Your task to perform on an android device: open sync settings in chrome Image 0: 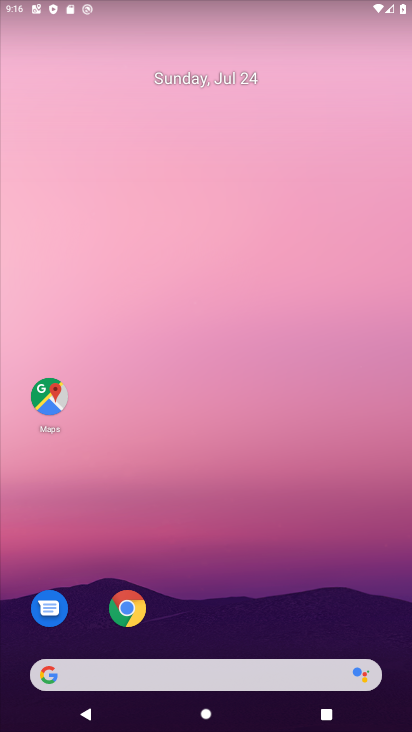
Step 0: click (123, 605)
Your task to perform on an android device: open sync settings in chrome Image 1: 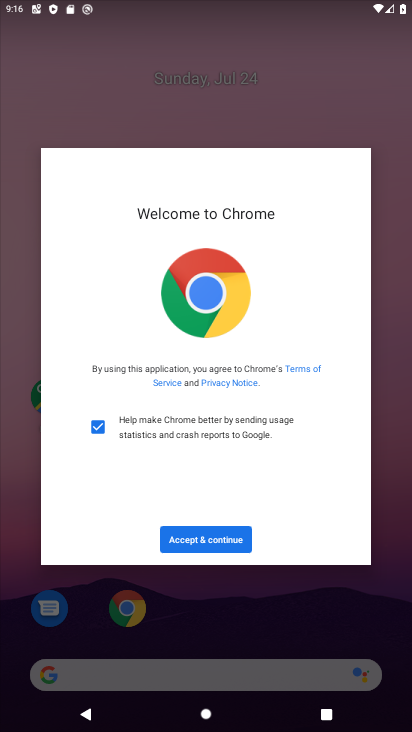
Step 1: click (207, 546)
Your task to perform on an android device: open sync settings in chrome Image 2: 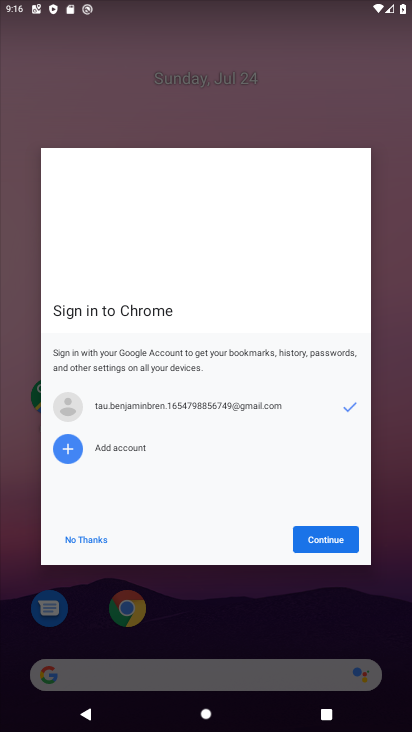
Step 2: click (330, 538)
Your task to perform on an android device: open sync settings in chrome Image 3: 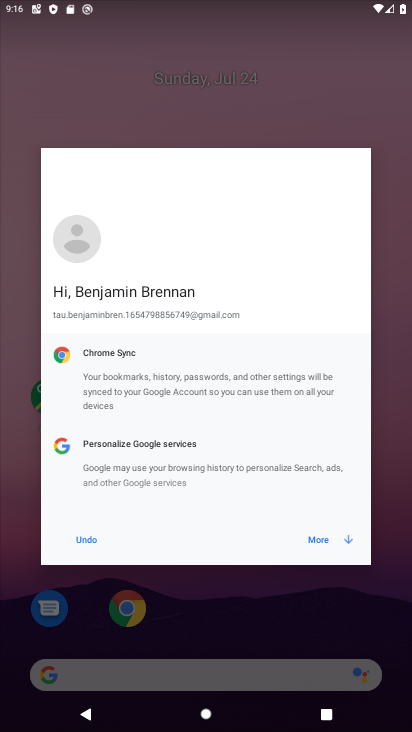
Step 3: click (349, 539)
Your task to perform on an android device: open sync settings in chrome Image 4: 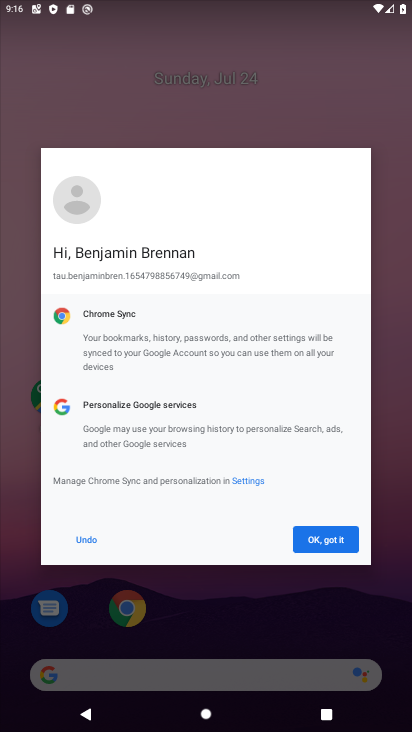
Step 4: click (325, 542)
Your task to perform on an android device: open sync settings in chrome Image 5: 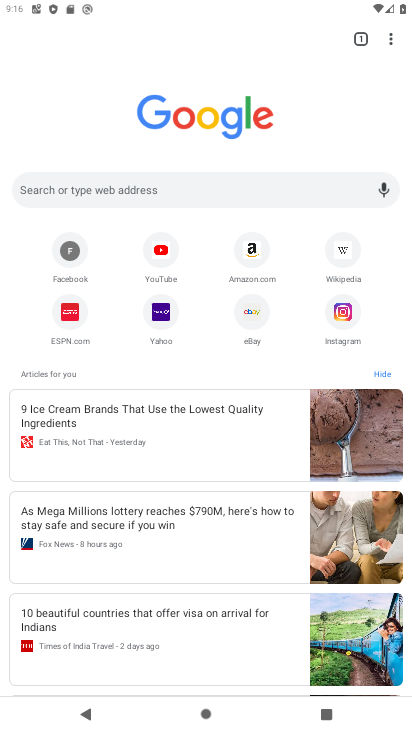
Step 5: drag from (392, 36) to (249, 326)
Your task to perform on an android device: open sync settings in chrome Image 6: 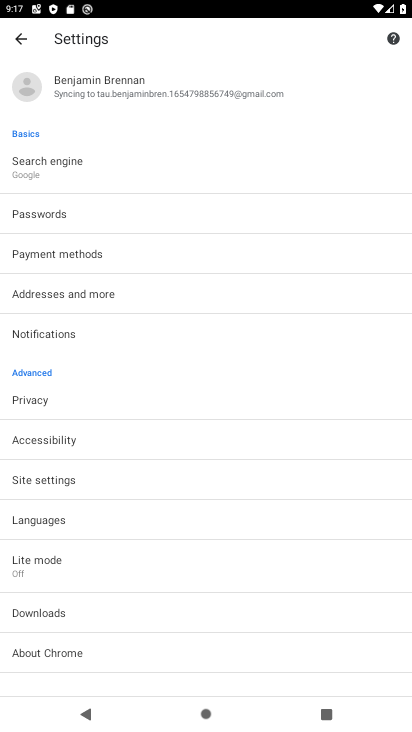
Step 6: click (39, 476)
Your task to perform on an android device: open sync settings in chrome Image 7: 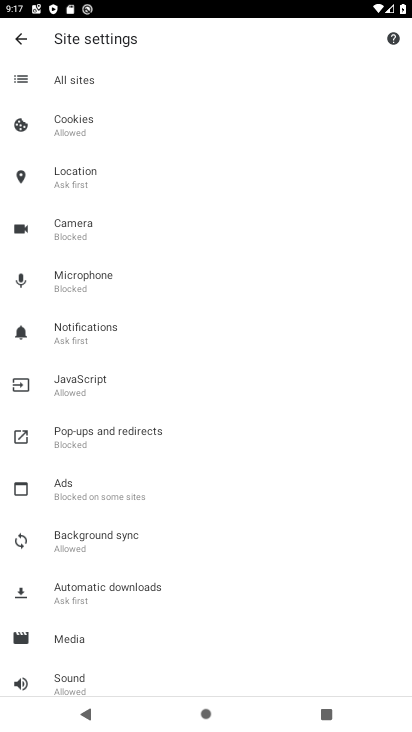
Step 7: click (75, 535)
Your task to perform on an android device: open sync settings in chrome Image 8: 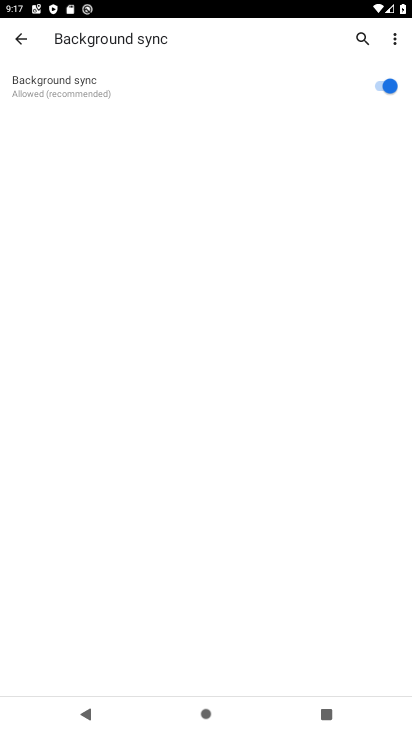
Step 8: task complete